Your task to perform on an android device: Search for pizza restaurants on Maps Image 0: 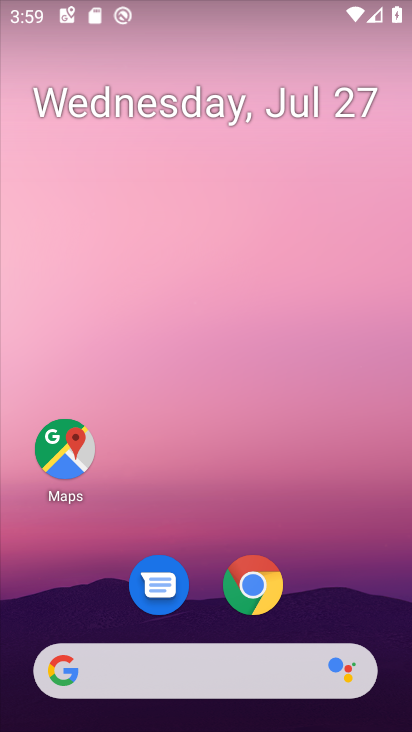
Step 0: click (70, 440)
Your task to perform on an android device: Search for pizza restaurants on Maps Image 1: 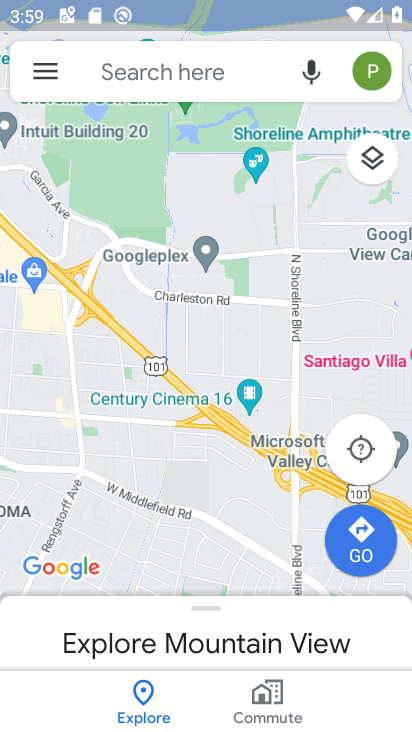
Step 1: click (153, 63)
Your task to perform on an android device: Search for pizza restaurants on Maps Image 2: 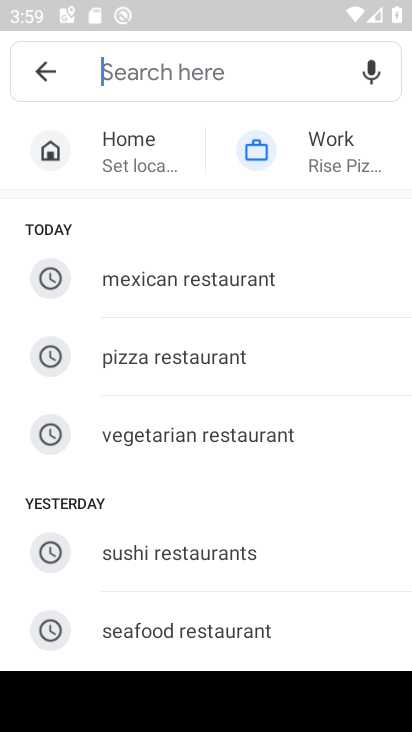
Step 2: click (172, 357)
Your task to perform on an android device: Search for pizza restaurants on Maps Image 3: 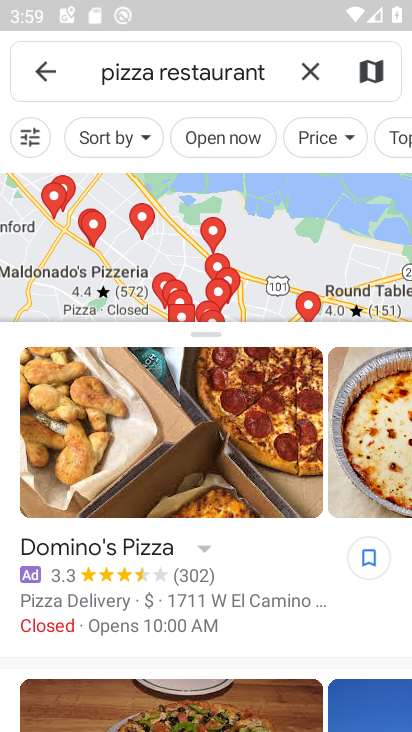
Step 3: task complete